Your task to perform on an android device: turn off location history Image 0: 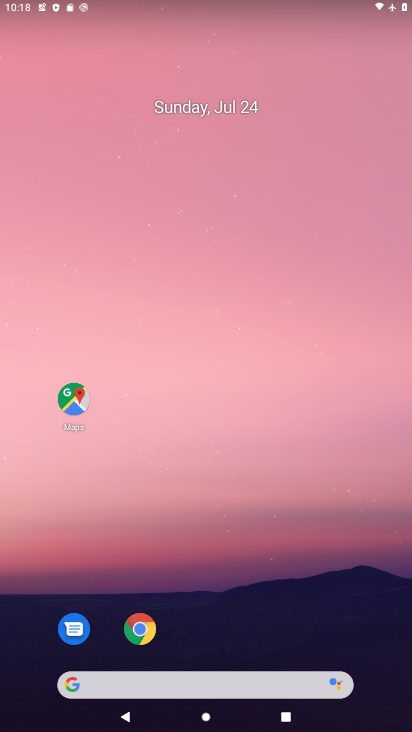
Step 0: drag from (254, 633) to (226, 101)
Your task to perform on an android device: turn off location history Image 1: 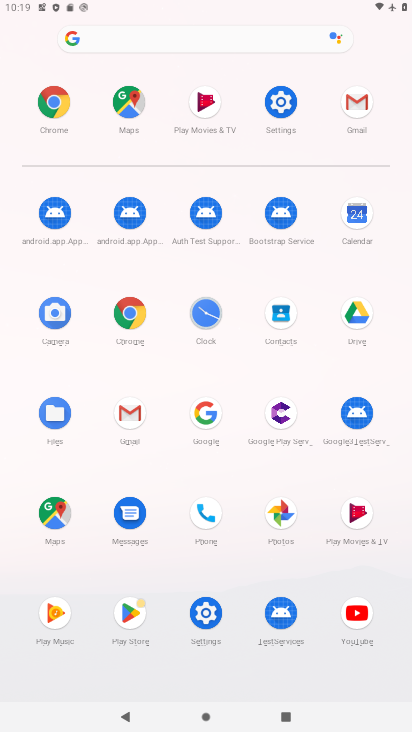
Step 1: click (201, 620)
Your task to perform on an android device: turn off location history Image 2: 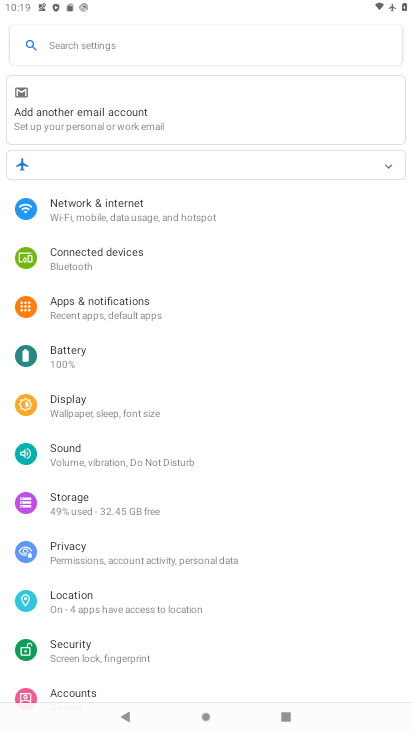
Step 2: click (170, 594)
Your task to perform on an android device: turn off location history Image 3: 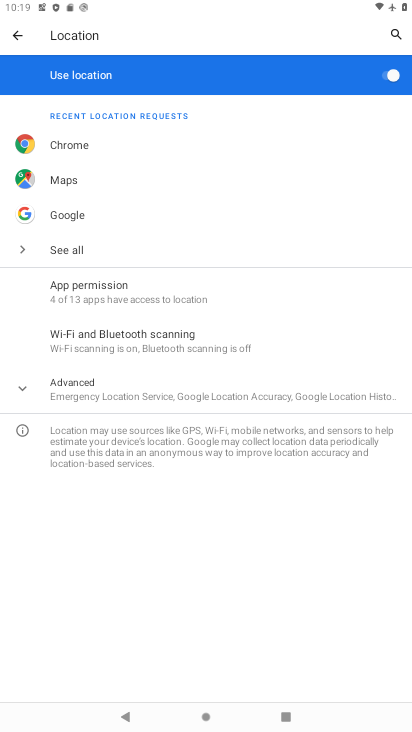
Step 3: click (69, 399)
Your task to perform on an android device: turn off location history Image 4: 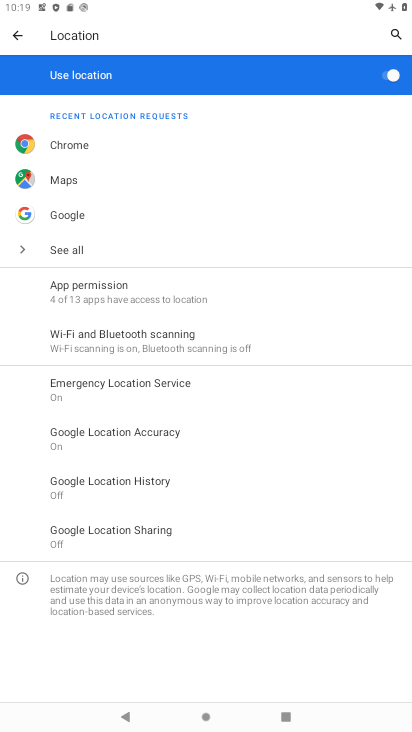
Step 4: click (106, 474)
Your task to perform on an android device: turn off location history Image 5: 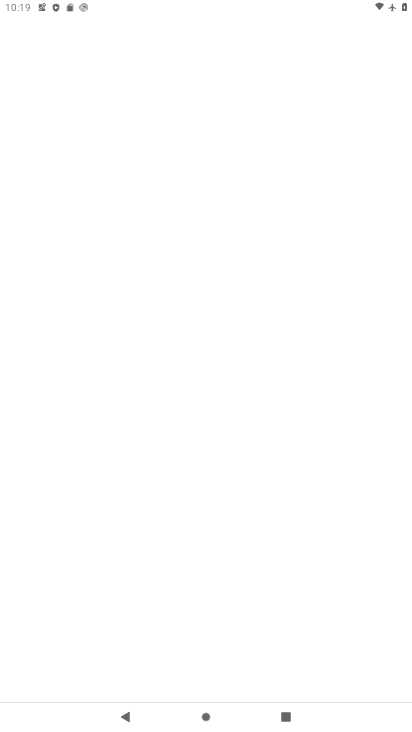
Step 5: task complete